Your task to perform on an android device: turn notification dots off Image 0: 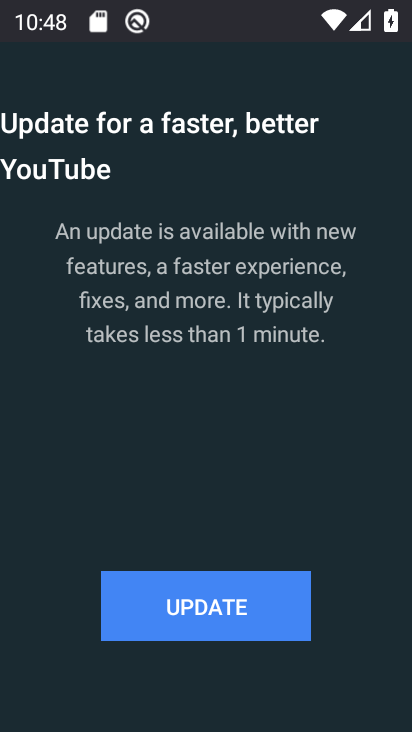
Step 0: press home button
Your task to perform on an android device: turn notification dots off Image 1: 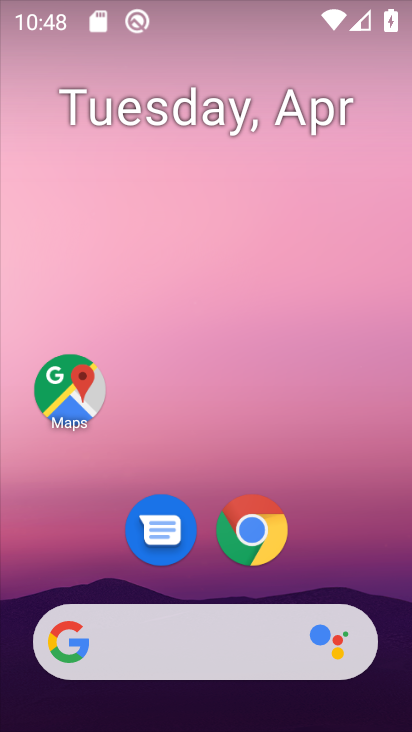
Step 1: drag from (226, 533) to (286, 38)
Your task to perform on an android device: turn notification dots off Image 2: 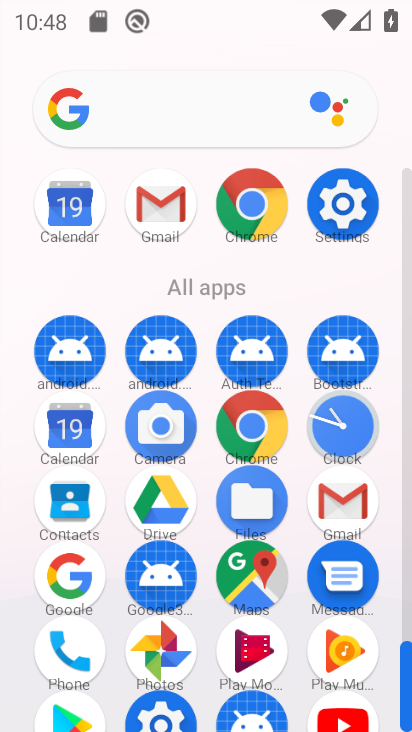
Step 2: click (341, 214)
Your task to perform on an android device: turn notification dots off Image 3: 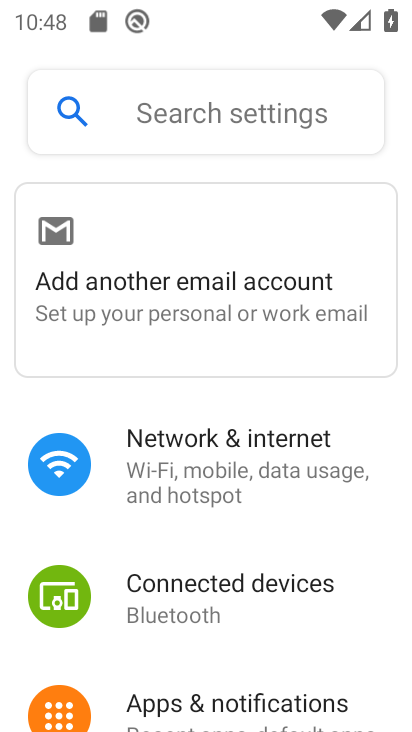
Step 3: drag from (250, 669) to (355, 250)
Your task to perform on an android device: turn notification dots off Image 4: 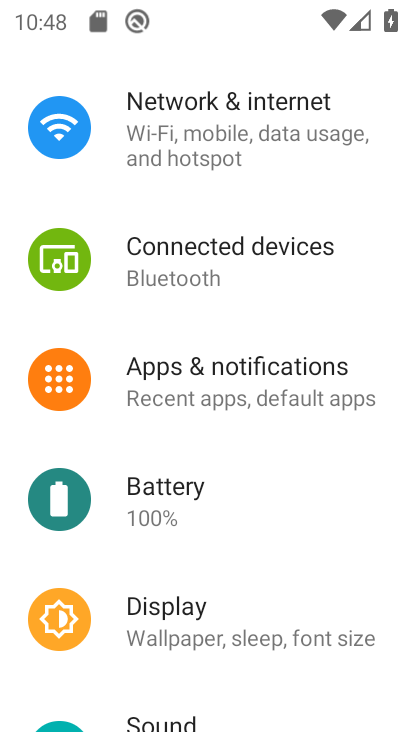
Step 4: click (259, 361)
Your task to perform on an android device: turn notification dots off Image 5: 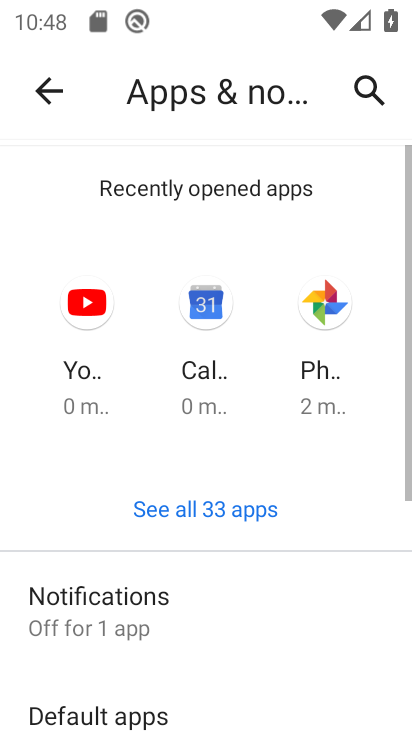
Step 5: click (134, 603)
Your task to perform on an android device: turn notification dots off Image 6: 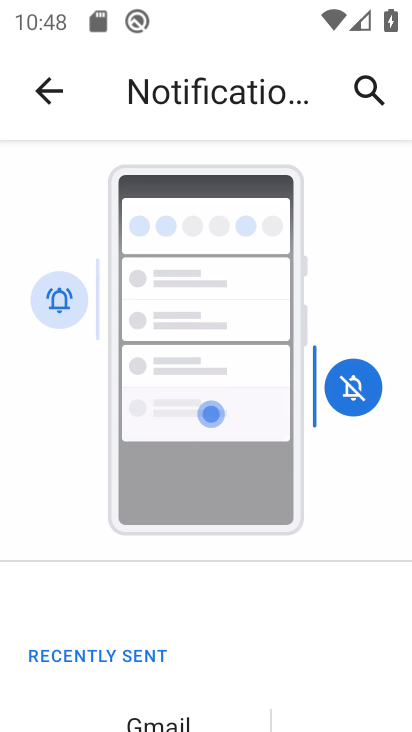
Step 6: drag from (256, 659) to (344, 162)
Your task to perform on an android device: turn notification dots off Image 7: 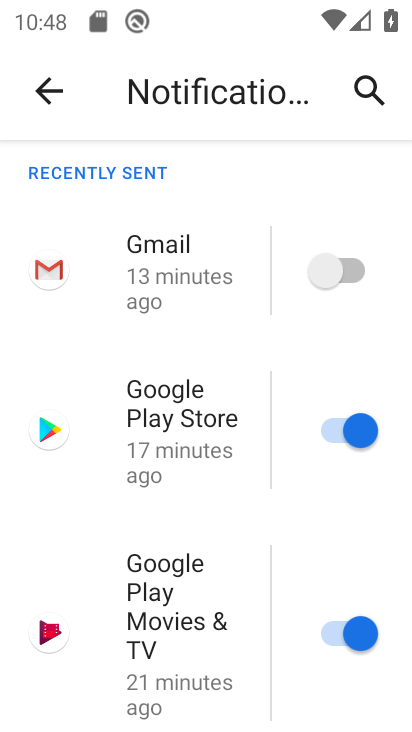
Step 7: drag from (246, 654) to (358, 104)
Your task to perform on an android device: turn notification dots off Image 8: 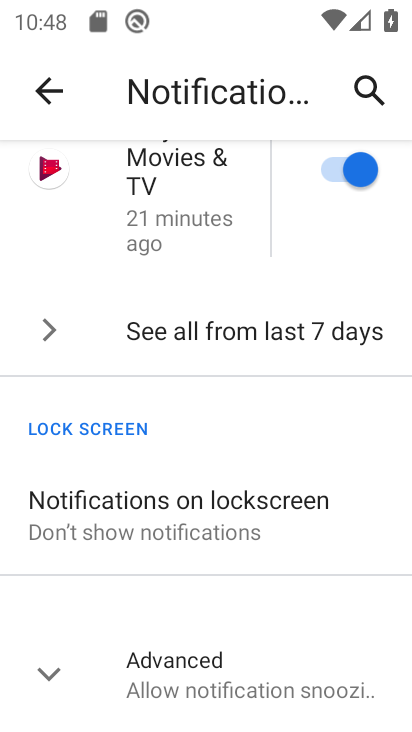
Step 8: click (176, 660)
Your task to perform on an android device: turn notification dots off Image 9: 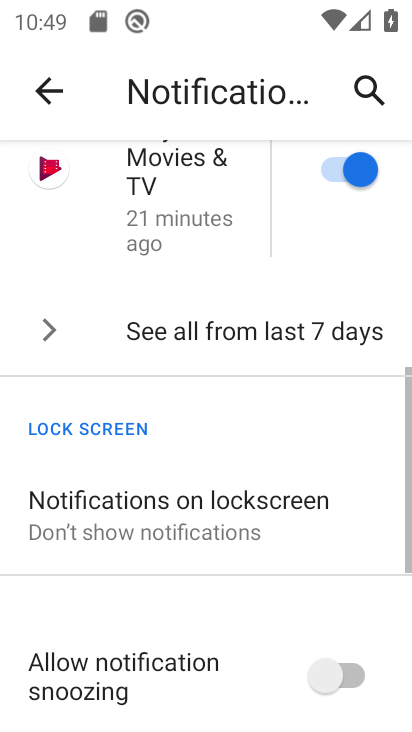
Step 9: drag from (187, 615) to (323, 114)
Your task to perform on an android device: turn notification dots off Image 10: 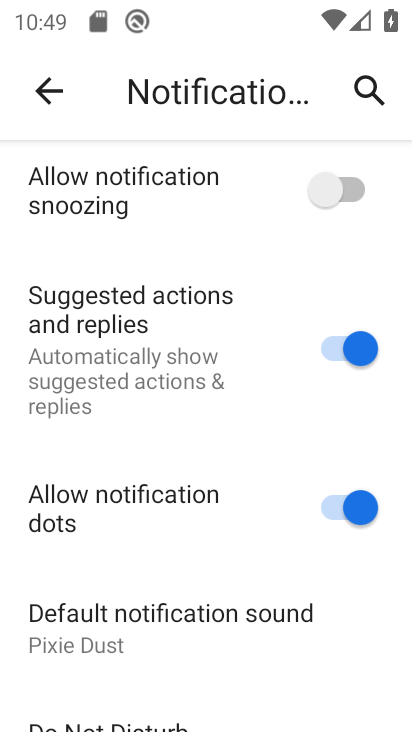
Step 10: click (334, 508)
Your task to perform on an android device: turn notification dots off Image 11: 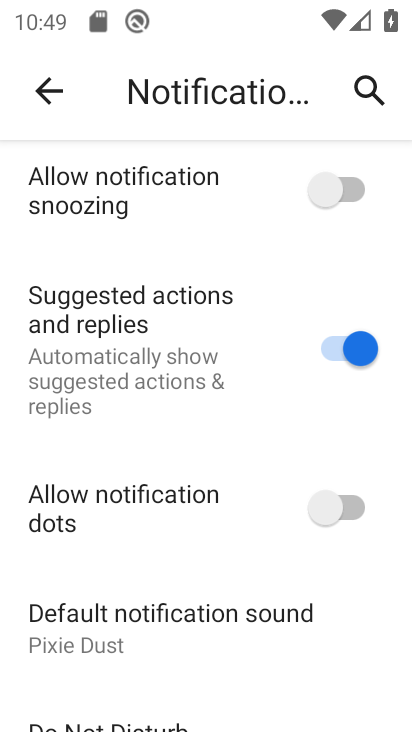
Step 11: task complete